Your task to perform on an android device: When is my next appointment? Image 0: 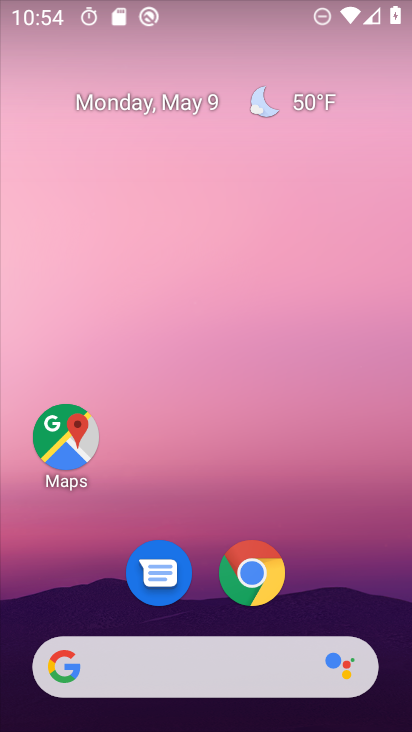
Step 0: drag from (336, 576) to (292, 189)
Your task to perform on an android device: When is my next appointment? Image 1: 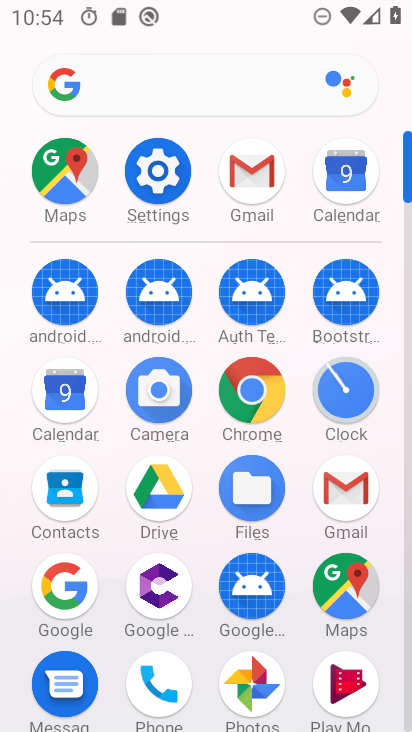
Step 1: click (49, 376)
Your task to perform on an android device: When is my next appointment? Image 2: 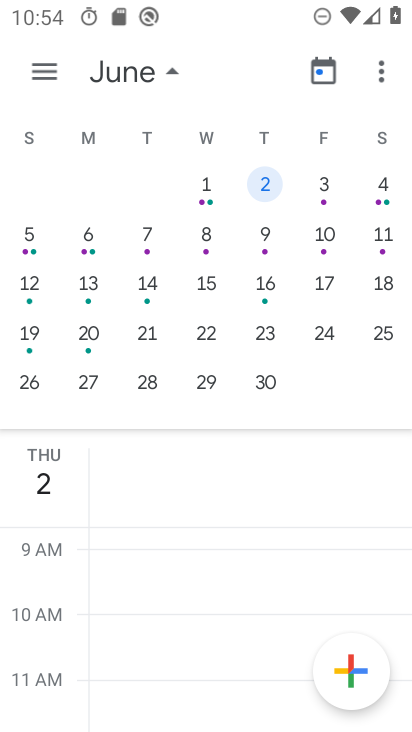
Step 2: drag from (56, 268) to (352, 272)
Your task to perform on an android device: When is my next appointment? Image 3: 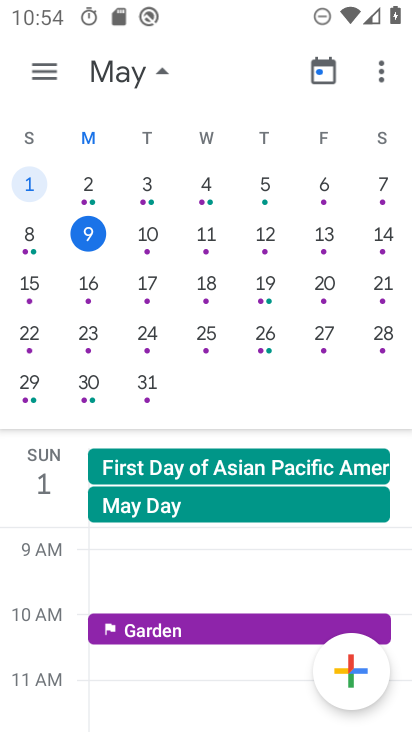
Step 3: click (88, 187)
Your task to perform on an android device: When is my next appointment? Image 4: 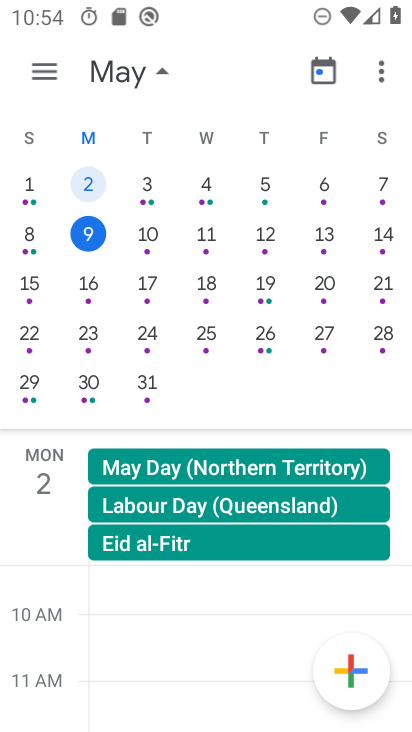
Step 4: click (95, 218)
Your task to perform on an android device: When is my next appointment? Image 5: 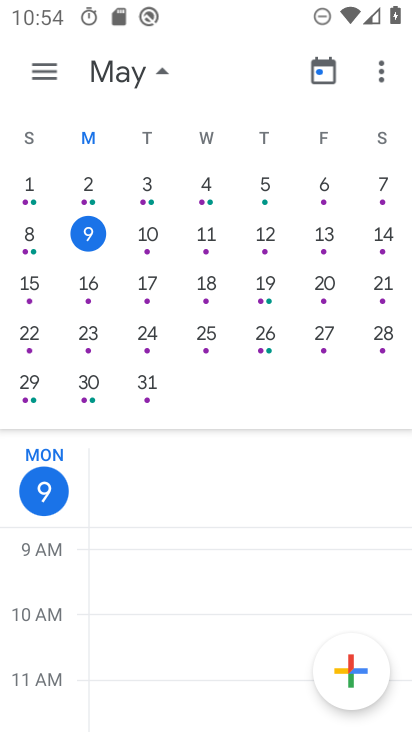
Step 5: click (90, 236)
Your task to perform on an android device: When is my next appointment? Image 6: 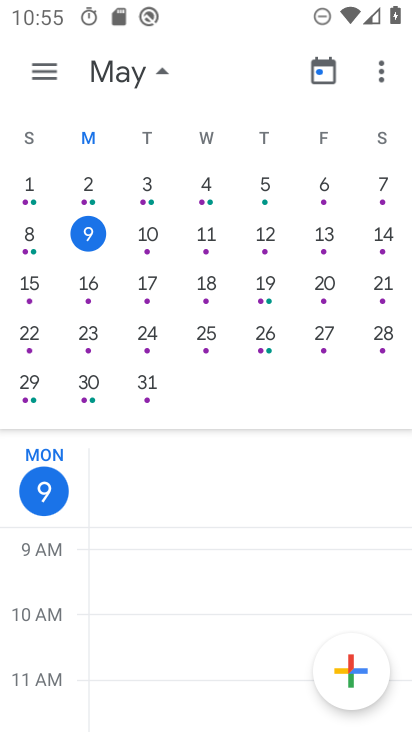
Step 6: drag from (268, 582) to (261, 67)
Your task to perform on an android device: When is my next appointment? Image 7: 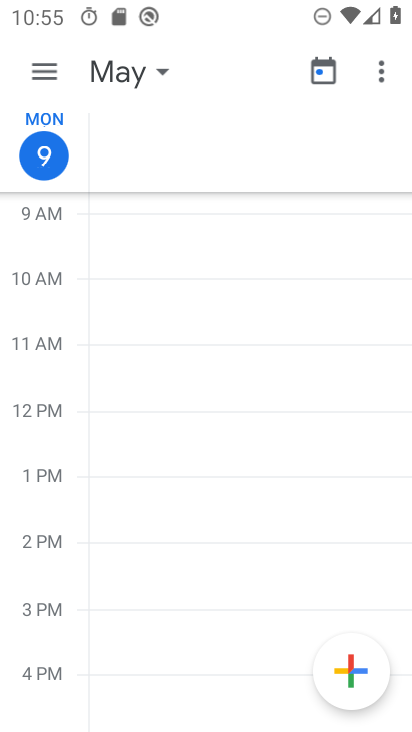
Step 7: drag from (211, 252) to (224, 8)
Your task to perform on an android device: When is my next appointment? Image 8: 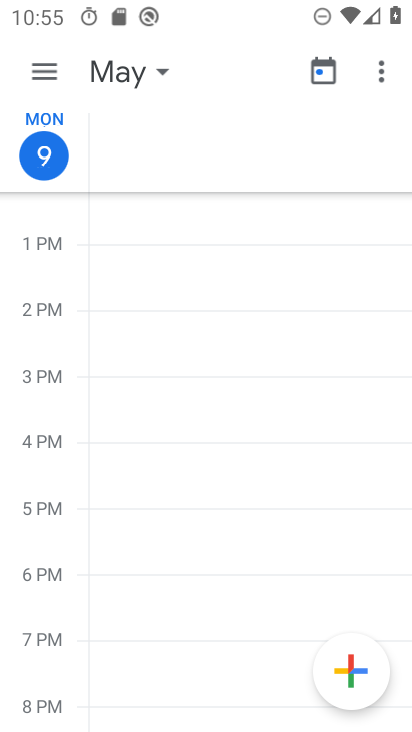
Step 8: drag from (155, 289) to (219, 660)
Your task to perform on an android device: When is my next appointment? Image 9: 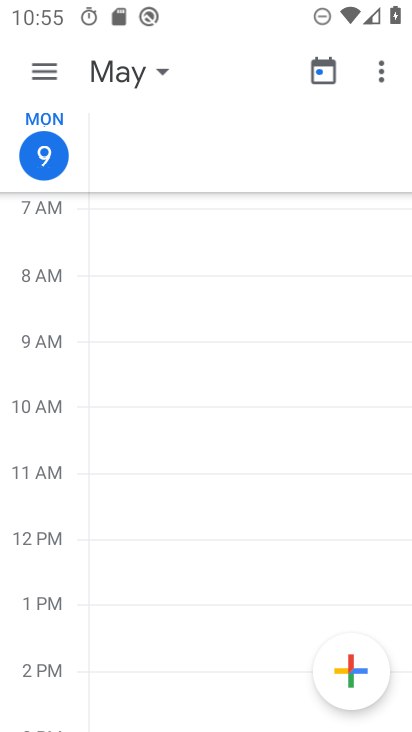
Step 9: drag from (214, 279) to (285, 721)
Your task to perform on an android device: When is my next appointment? Image 10: 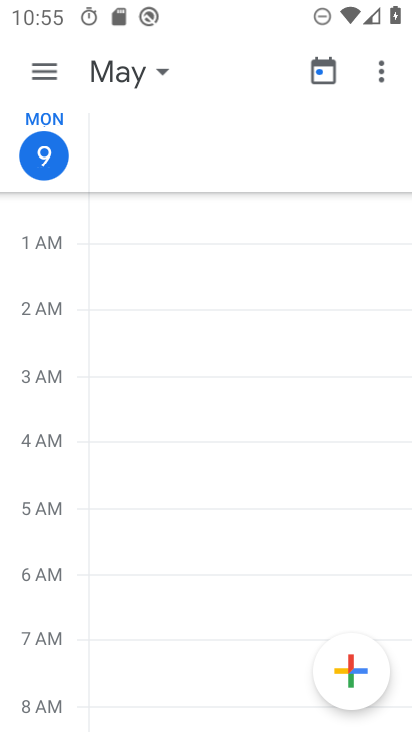
Step 10: drag from (206, 281) to (288, 725)
Your task to perform on an android device: When is my next appointment? Image 11: 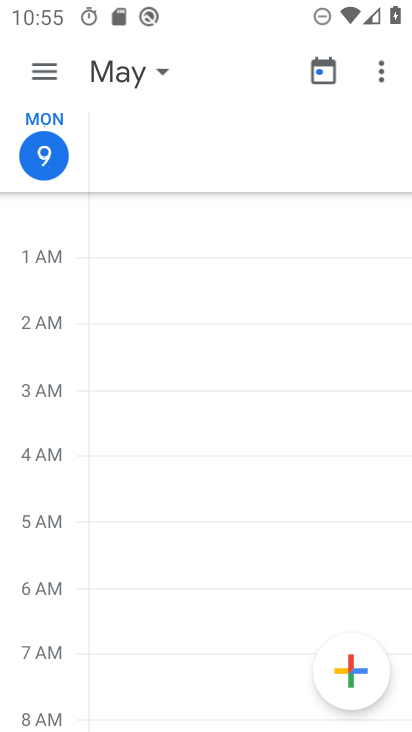
Step 11: drag from (217, 238) to (300, 725)
Your task to perform on an android device: When is my next appointment? Image 12: 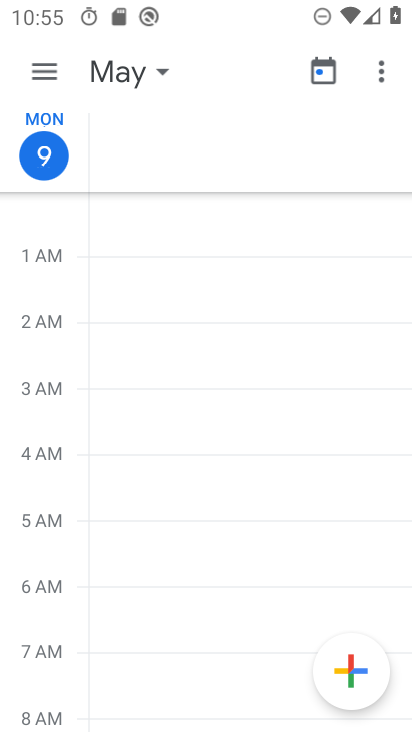
Step 12: drag from (178, 189) to (204, 416)
Your task to perform on an android device: When is my next appointment? Image 13: 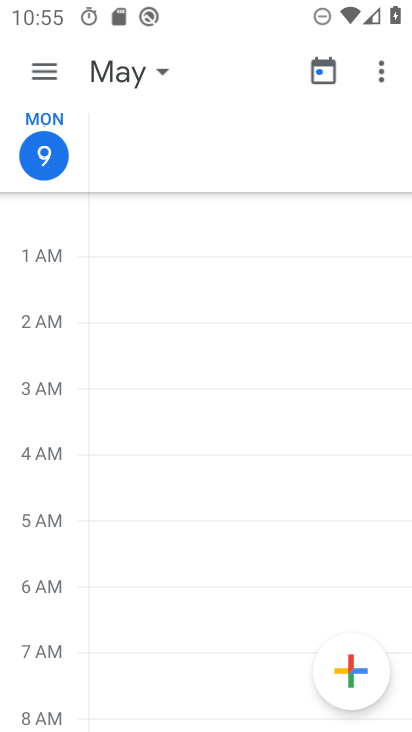
Step 13: drag from (197, 165) to (209, 497)
Your task to perform on an android device: When is my next appointment? Image 14: 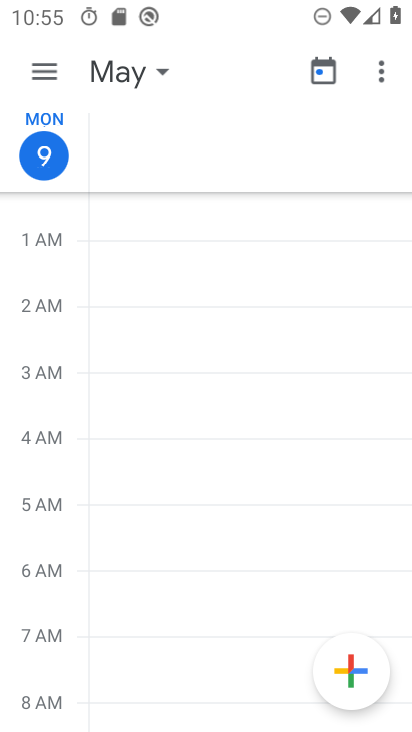
Step 14: click (41, 146)
Your task to perform on an android device: When is my next appointment? Image 15: 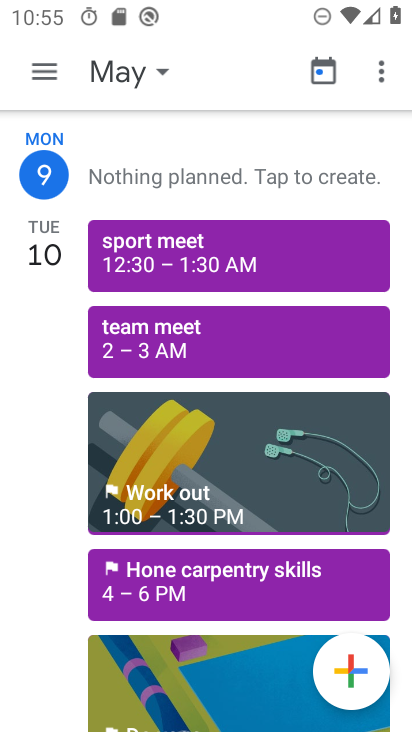
Step 15: click (58, 262)
Your task to perform on an android device: When is my next appointment? Image 16: 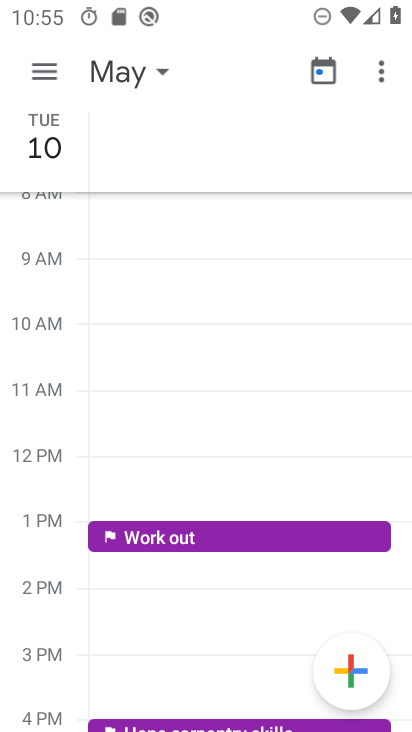
Step 16: click (53, 142)
Your task to perform on an android device: When is my next appointment? Image 17: 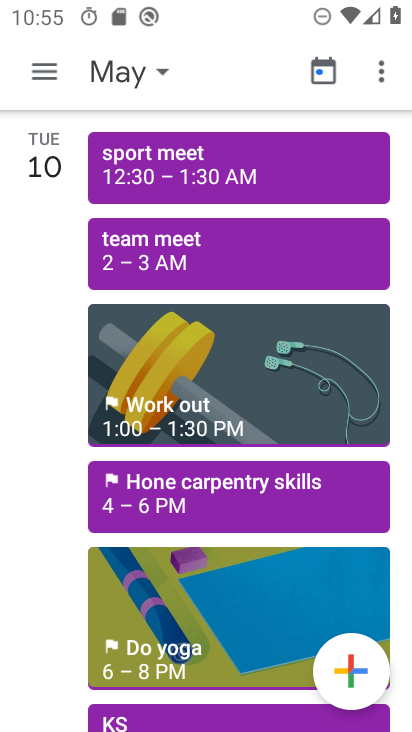
Step 17: drag from (203, 139) to (193, 595)
Your task to perform on an android device: When is my next appointment? Image 18: 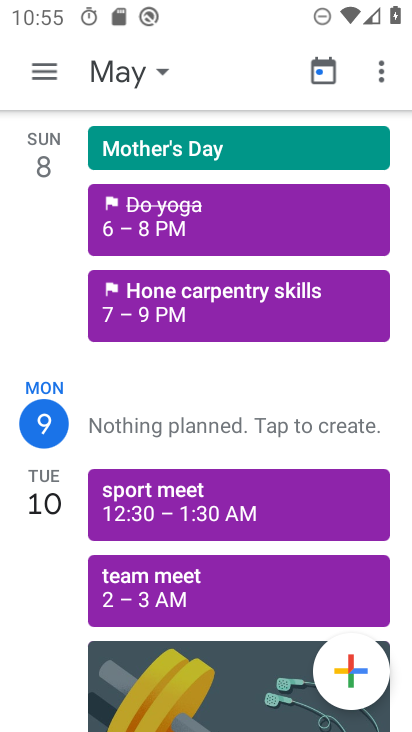
Step 18: click (48, 411)
Your task to perform on an android device: When is my next appointment? Image 19: 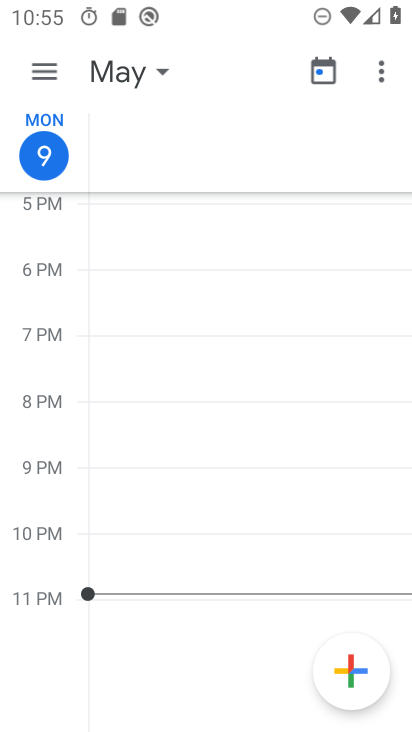
Step 19: click (53, 146)
Your task to perform on an android device: When is my next appointment? Image 20: 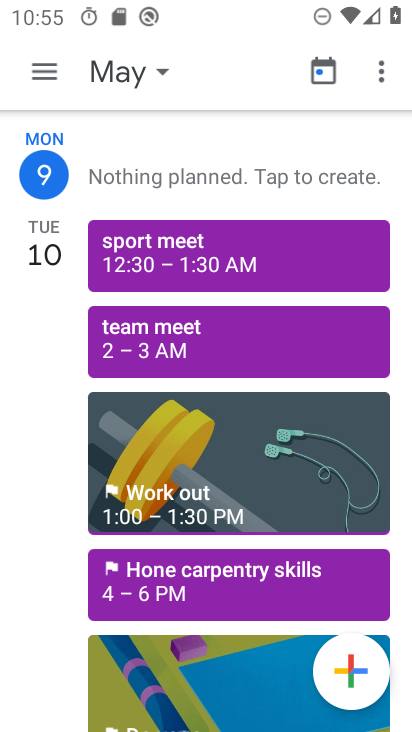
Step 20: task complete